Your task to perform on an android device: Open calendar and show me the fourth week of next month Image 0: 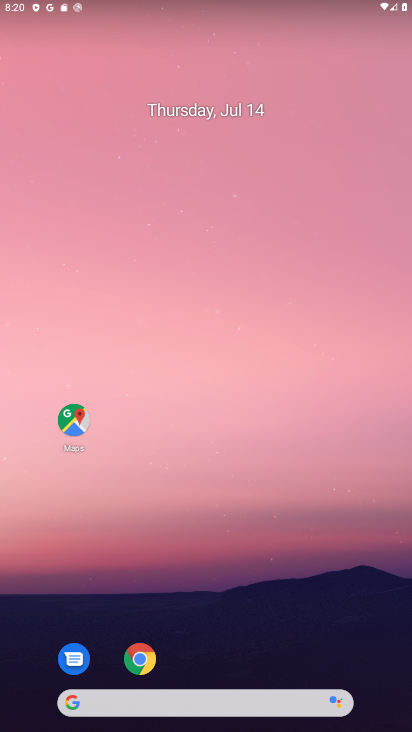
Step 0: drag from (212, 660) to (203, 187)
Your task to perform on an android device: Open calendar and show me the fourth week of next month Image 1: 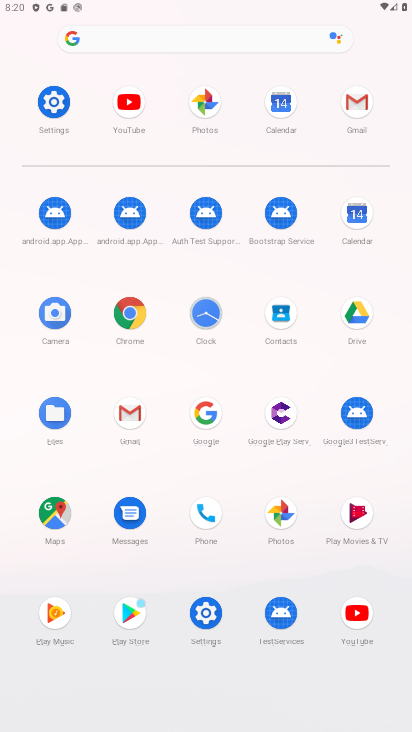
Step 1: click (352, 228)
Your task to perform on an android device: Open calendar and show me the fourth week of next month Image 2: 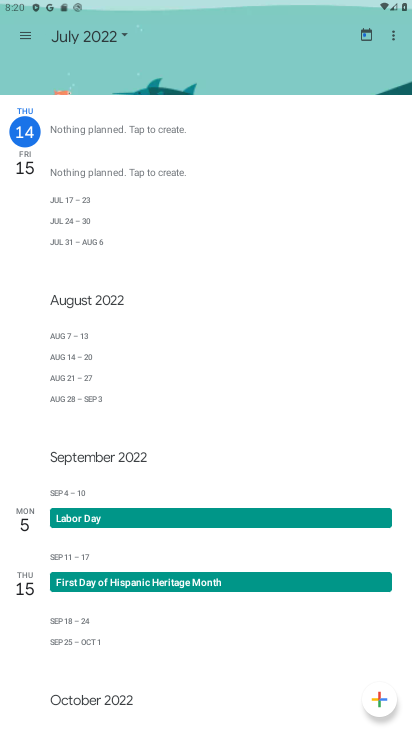
Step 2: click (25, 34)
Your task to perform on an android device: Open calendar and show me the fourth week of next month Image 3: 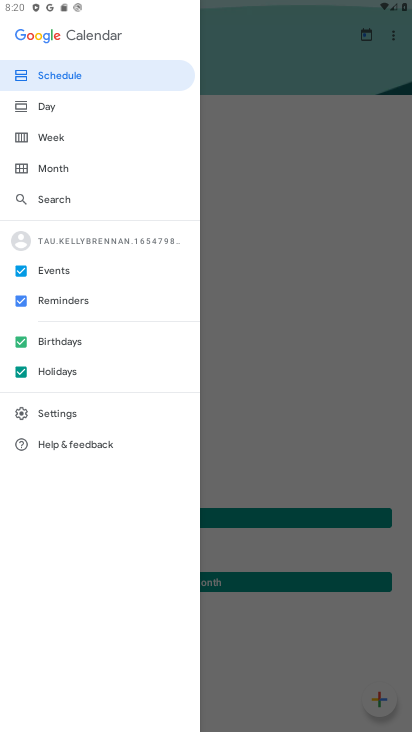
Step 3: click (52, 143)
Your task to perform on an android device: Open calendar and show me the fourth week of next month Image 4: 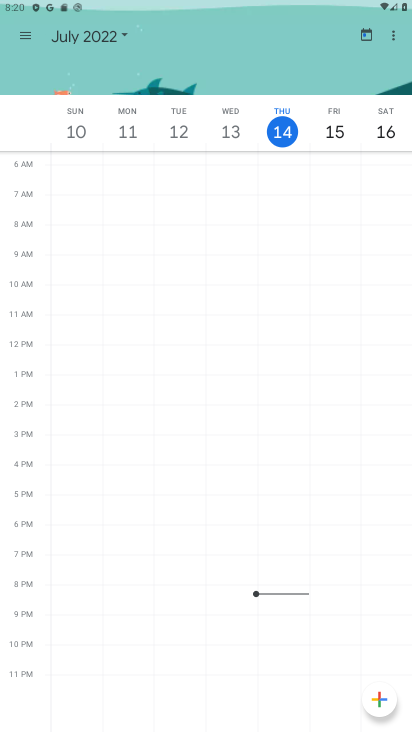
Step 4: drag from (348, 289) to (48, 322)
Your task to perform on an android device: Open calendar and show me the fourth week of next month Image 5: 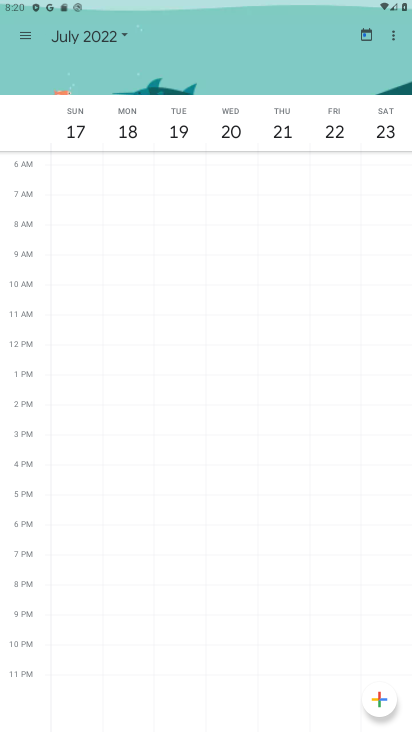
Step 5: drag from (344, 321) to (101, 333)
Your task to perform on an android device: Open calendar and show me the fourth week of next month Image 6: 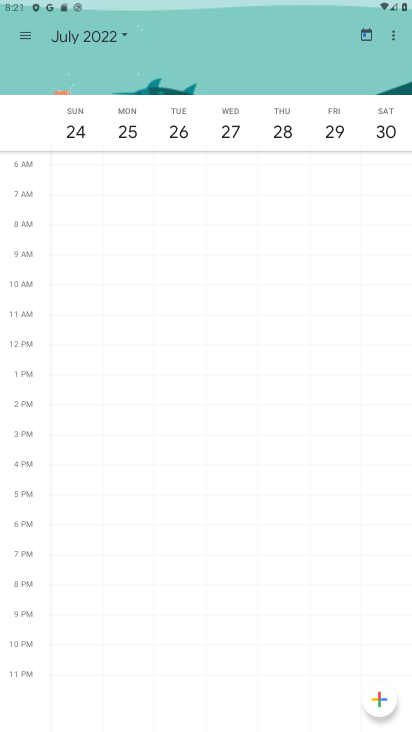
Step 6: click (73, 47)
Your task to perform on an android device: Open calendar and show me the fourth week of next month Image 7: 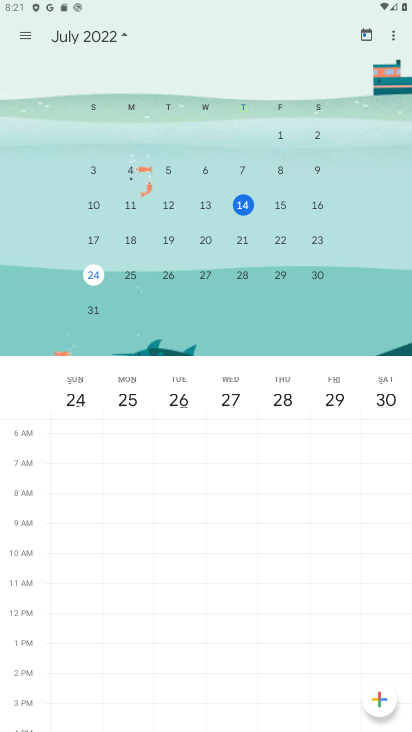
Step 7: click (319, 239)
Your task to perform on an android device: Open calendar and show me the fourth week of next month Image 8: 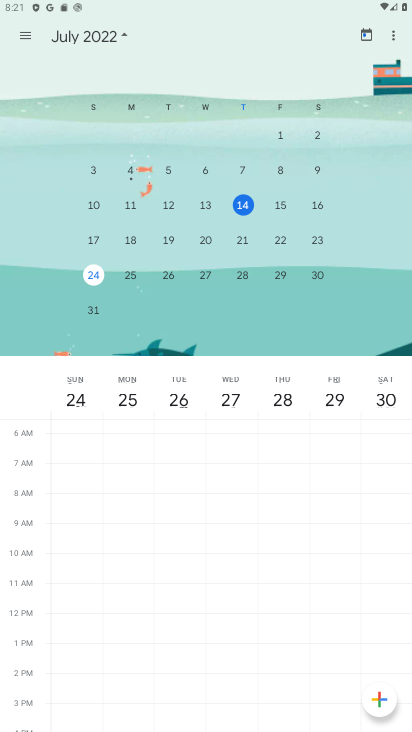
Step 8: drag from (270, 239) to (46, 285)
Your task to perform on an android device: Open calendar and show me the fourth week of next month Image 9: 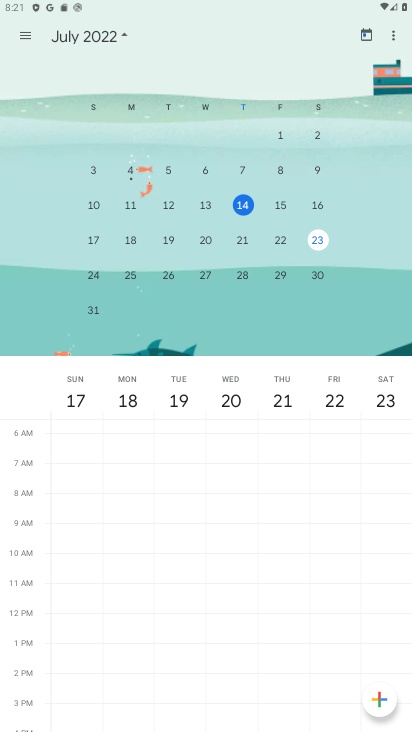
Step 9: drag from (289, 194) to (69, 236)
Your task to perform on an android device: Open calendar and show me the fourth week of next month Image 10: 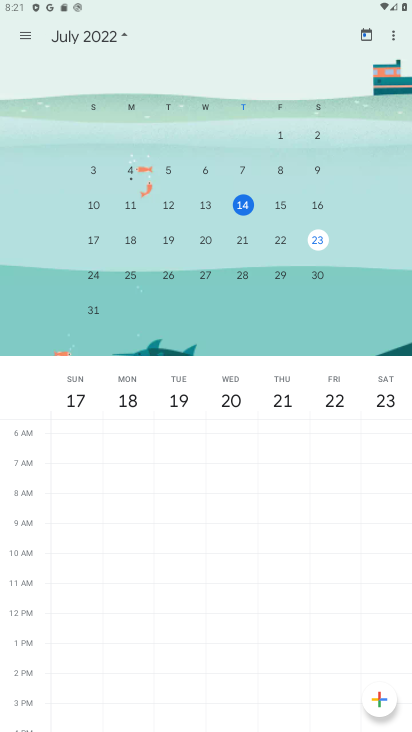
Step 10: drag from (93, 200) to (32, 239)
Your task to perform on an android device: Open calendar and show me the fourth week of next month Image 11: 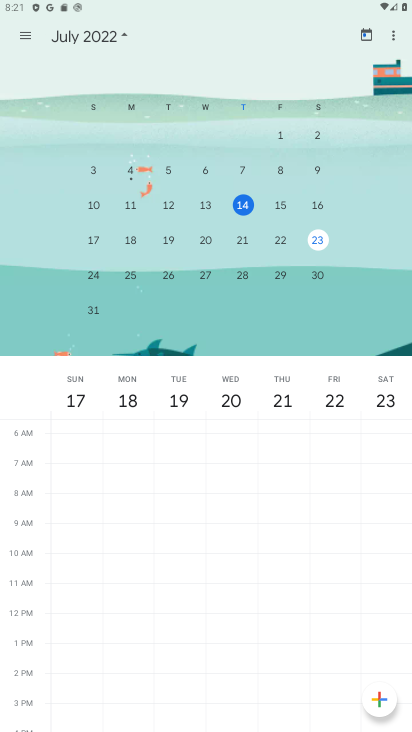
Step 11: drag from (211, 200) to (60, 261)
Your task to perform on an android device: Open calendar and show me the fourth week of next month Image 12: 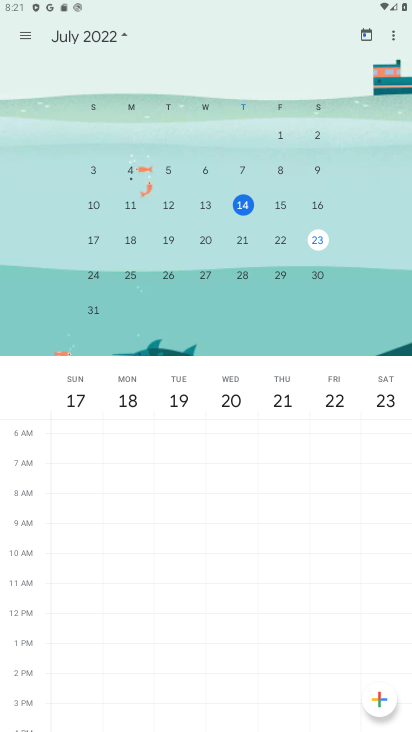
Step 12: drag from (8, 201) to (15, 237)
Your task to perform on an android device: Open calendar and show me the fourth week of next month Image 13: 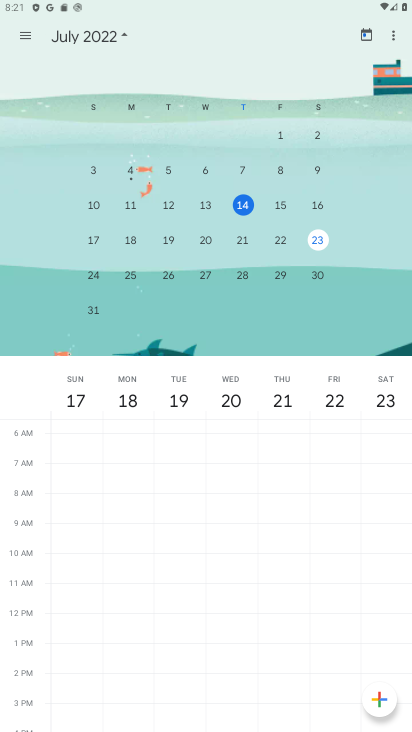
Step 13: drag from (329, 174) to (44, 225)
Your task to perform on an android device: Open calendar and show me the fourth week of next month Image 14: 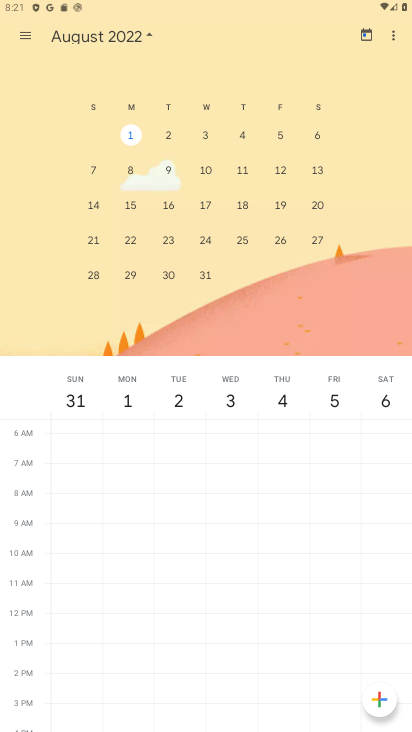
Step 14: click (94, 241)
Your task to perform on an android device: Open calendar and show me the fourth week of next month Image 15: 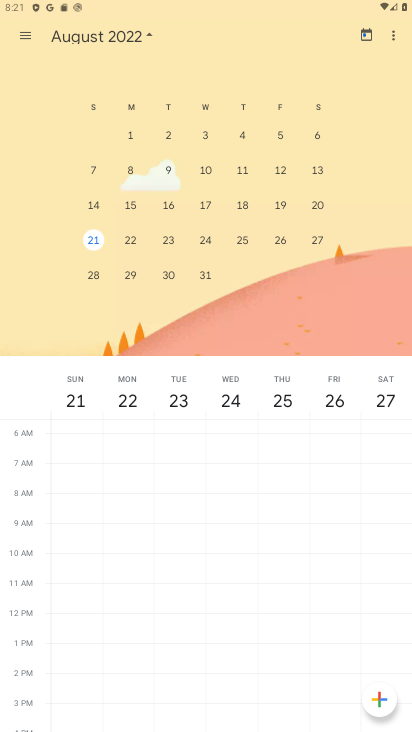
Step 15: task complete